Your task to perform on an android device: Open Google Chrome and click the shortcut for Amazon.com Image 0: 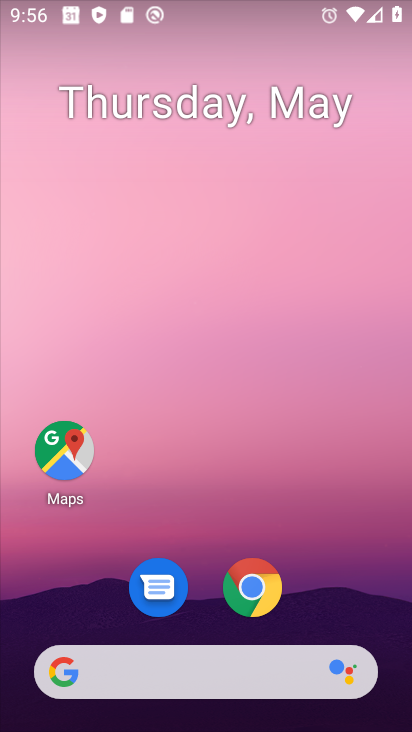
Step 0: drag from (378, 632) to (289, 13)
Your task to perform on an android device: Open Google Chrome and click the shortcut for Amazon.com Image 1: 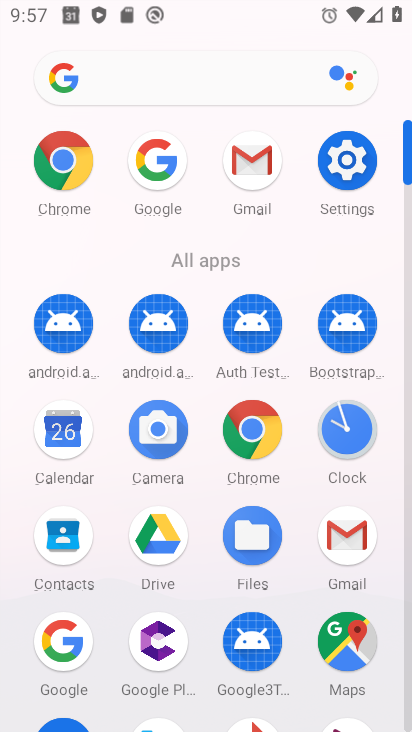
Step 1: click (265, 419)
Your task to perform on an android device: Open Google Chrome and click the shortcut for Amazon.com Image 2: 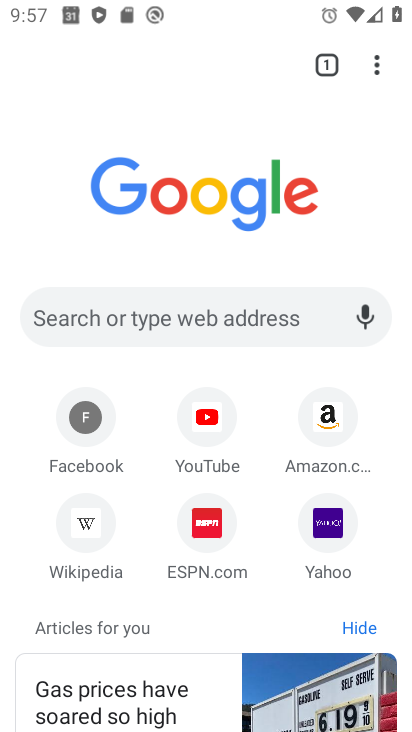
Step 2: click (317, 443)
Your task to perform on an android device: Open Google Chrome and click the shortcut for Amazon.com Image 3: 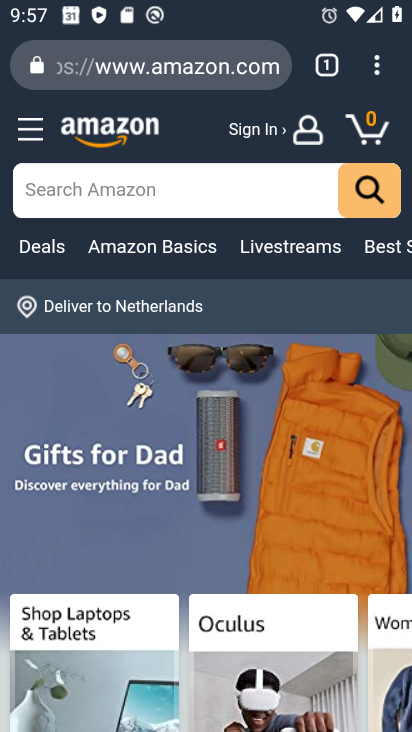
Step 3: task complete